Your task to perform on an android device: Open calendar and show me the first week of next month Image 0: 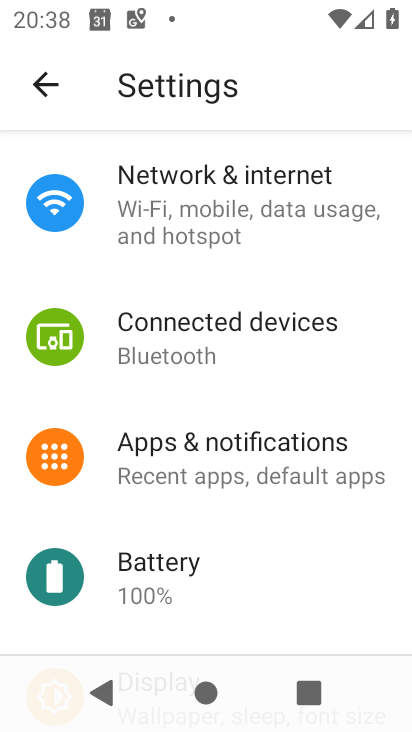
Step 0: press home button
Your task to perform on an android device: Open calendar and show me the first week of next month Image 1: 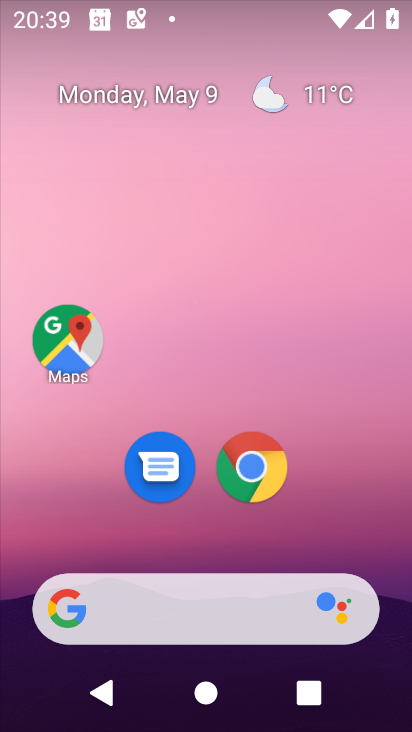
Step 1: drag from (304, 517) to (337, 211)
Your task to perform on an android device: Open calendar and show me the first week of next month Image 2: 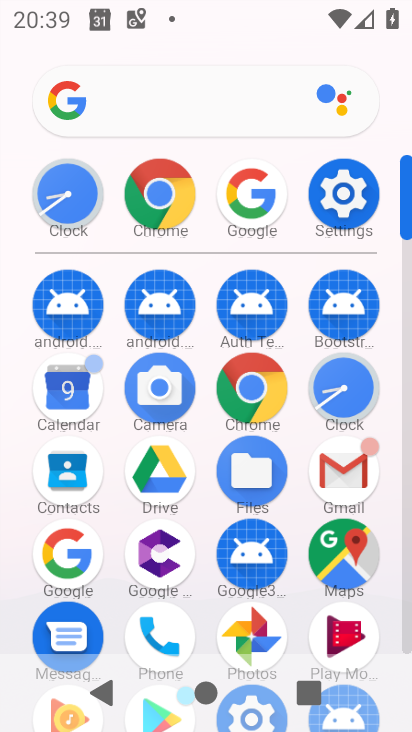
Step 2: click (54, 390)
Your task to perform on an android device: Open calendar and show me the first week of next month Image 3: 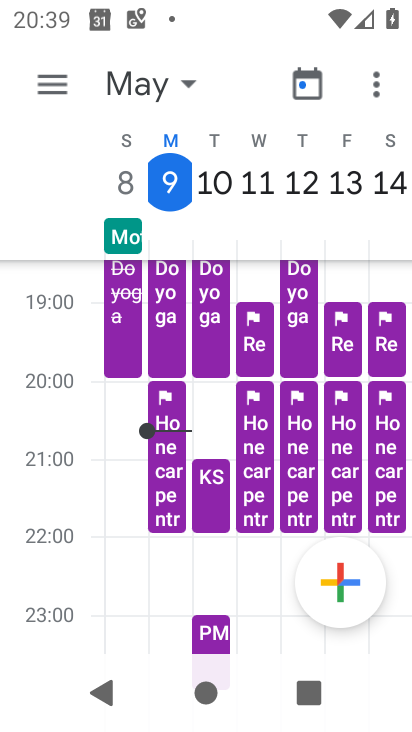
Step 3: click (51, 77)
Your task to perform on an android device: Open calendar and show me the first week of next month Image 4: 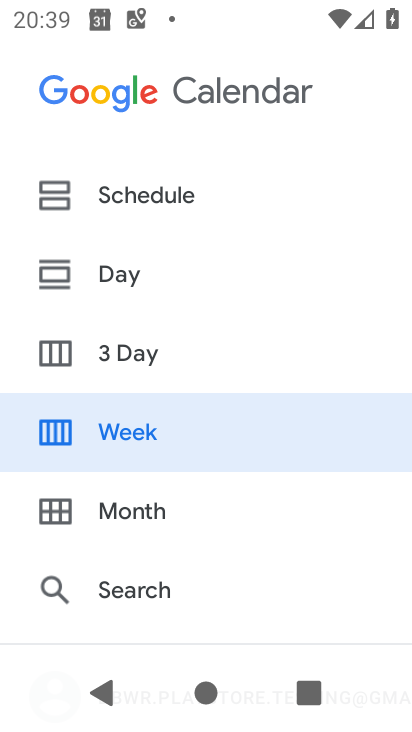
Step 4: click (110, 507)
Your task to perform on an android device: Open calendar and show me the first week of next month Image 5: 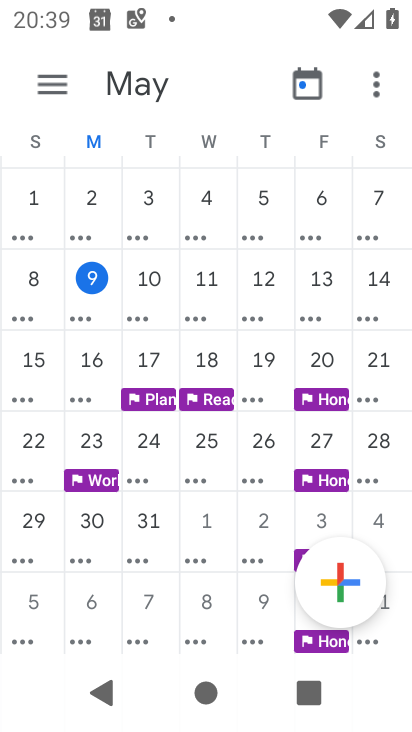
Step 5: task complete